Your task to perform on an android device: turn pop-ups on in chrome Image 0: 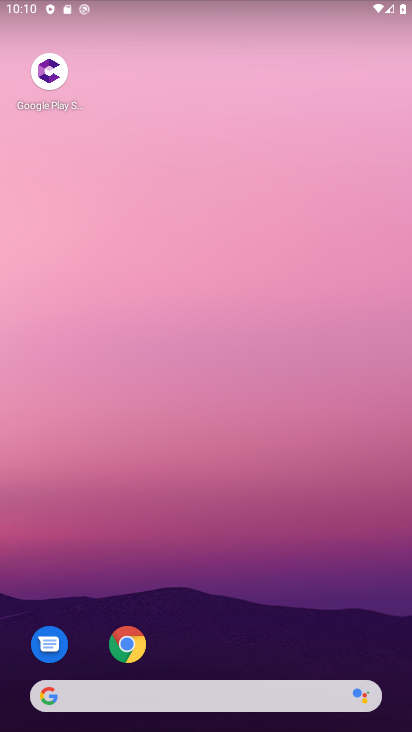
Step 0: click (185, 174)
Your task to perform on an android device: turn pop-ups on in chrome Image 1: 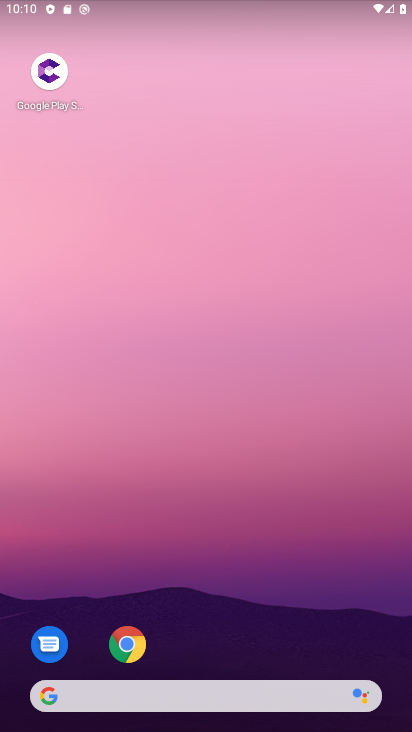
Step 1: drag from (209, 669) to (160, 241)
Your task to perform on an android device: turn pop-ups on in chrome Image 2: 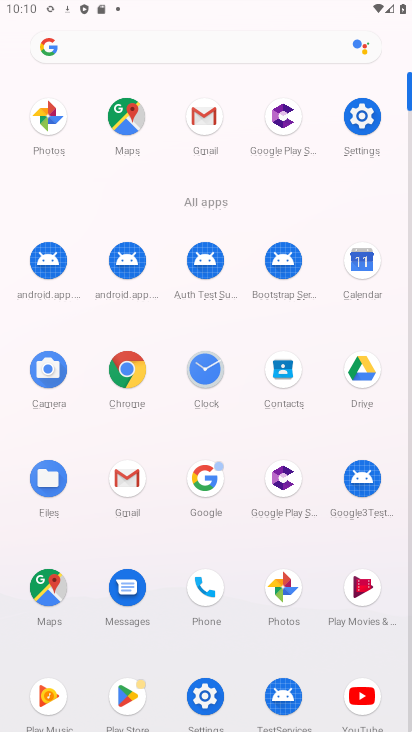
Step 2: click (126, 366)
Your task to perform on an android device: turn pop-ups on in chrome Image 3: 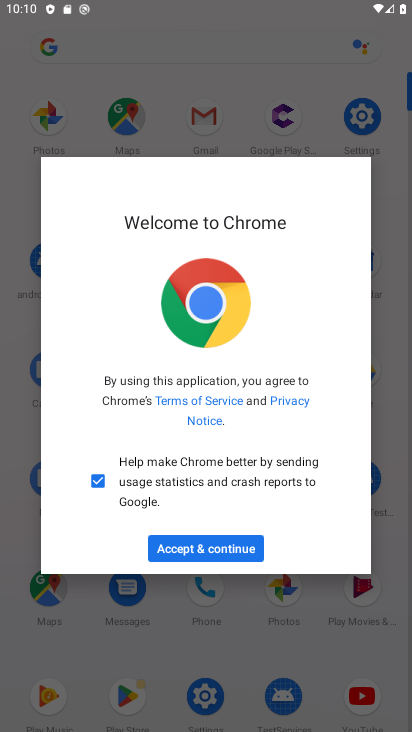
Step 3: click (218, 542)
Your task to perform on an android device: turn pop-ups on in chrome Image 4: 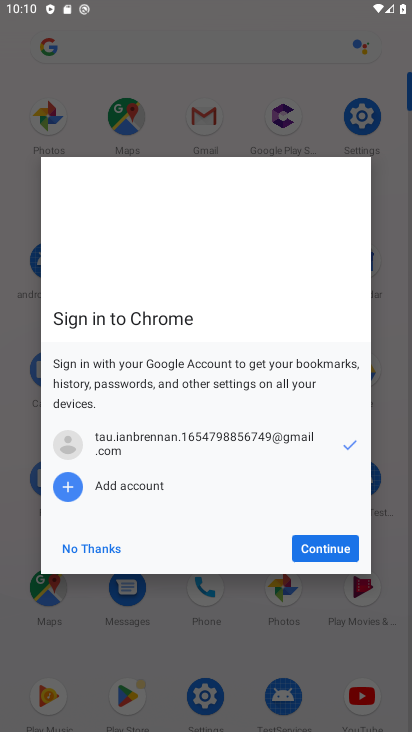
Step 4: click (311, 551)
Your task to perform on an android device: turn pop-ups on in chrome Image 5: 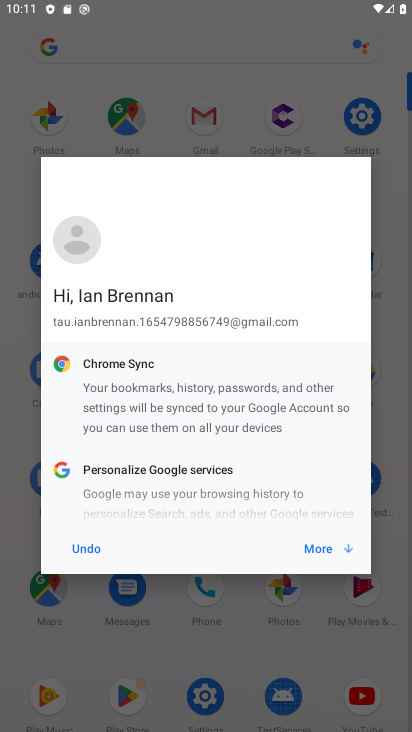
Step 5: click (328, 546)
Your task to perform on an android device: turn pop-ups on in chrome Image 6: 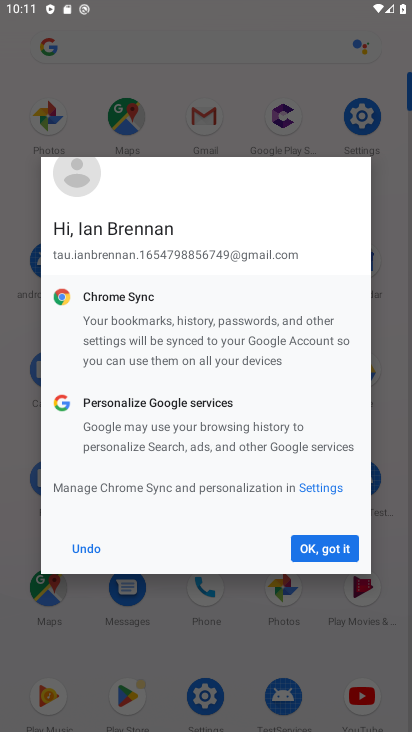
Step 6: click (87, 545)
Your task to perform on an android device: turn pop-ups on in chrome Image 7: 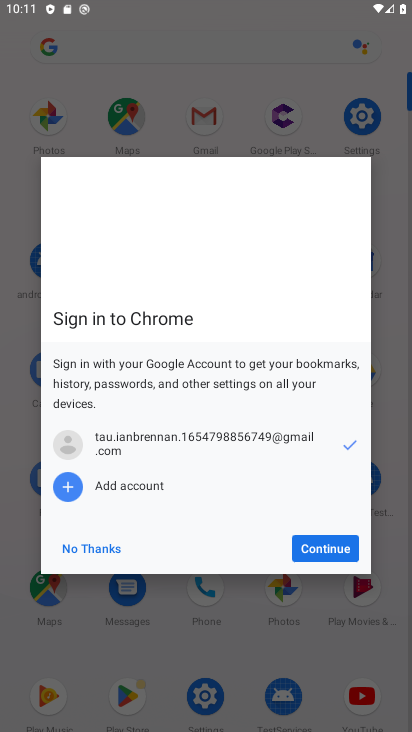
Step 7: click (338, 540)
Your task to perform on an android device: turn pop-ups on in chrome Image 8: 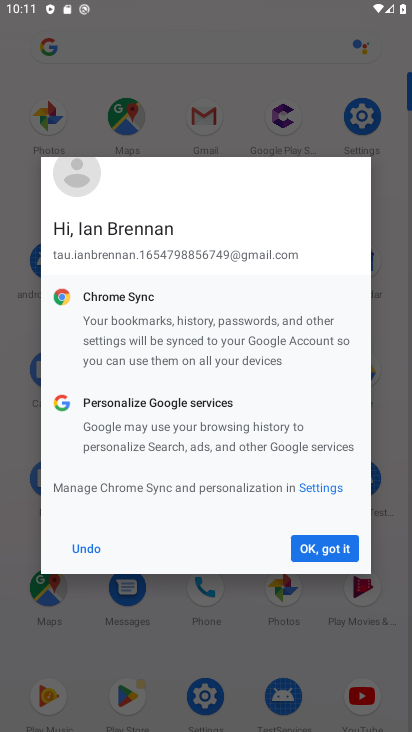
Step 8: click (332, 544)
Your task to perform on an android device: turn pop-ups on in chrome Image 9: 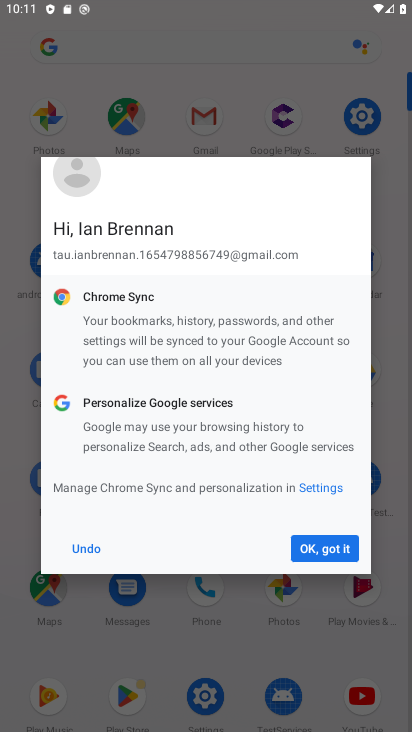
Step 9: click (331, 544)
Your task to perform on an android device: turn pop-ups on in chrome Image 10: 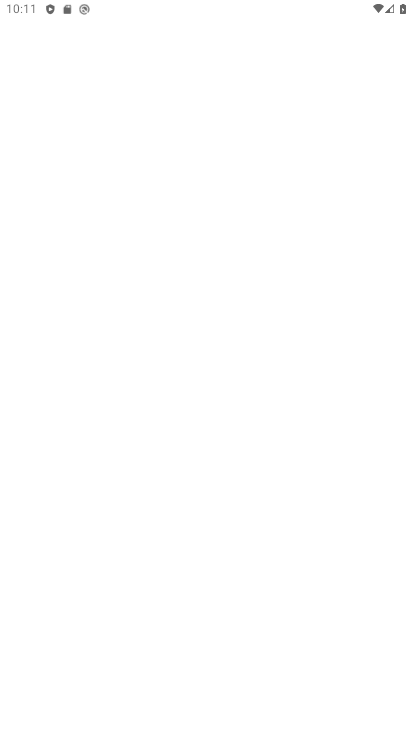
Step 10: click (331, 546)
Your task to perform on an android device: turn pop-ups on in chrome Image 11: 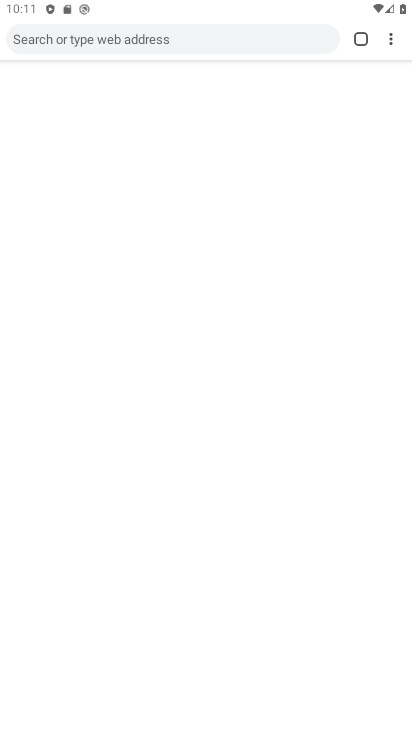
Step 11: click (331, 549)
Your task to perform on an android device: turn pop-ups on in chrome Image 12: 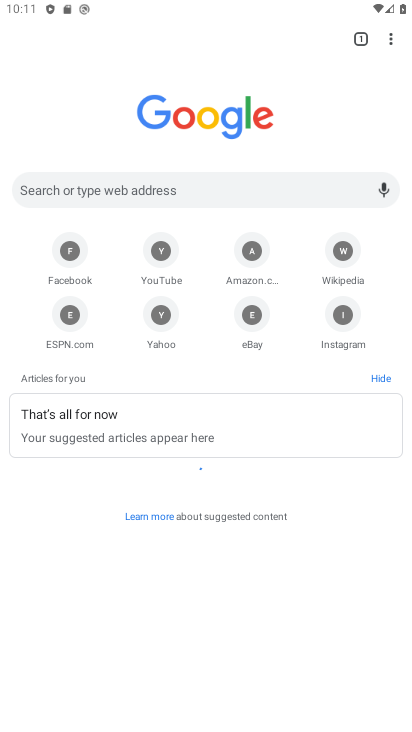
Step 12: drag from (393, 43) to (252, 330)
Your task to perform on an android device: turn pop-ups on in chrome Image 13: 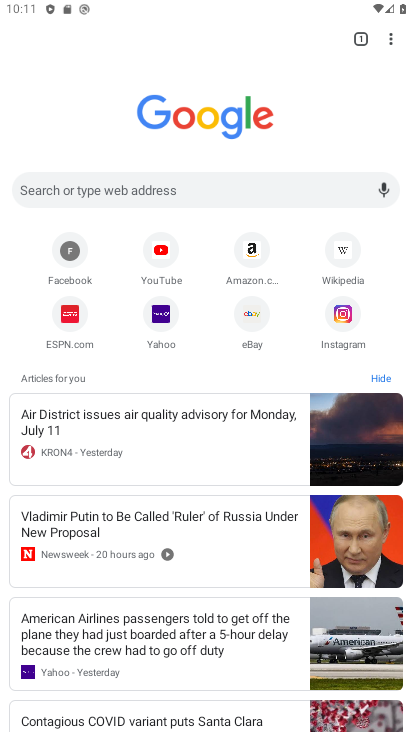
Step 13: click (252, 330)
Your task to perform on an android device: turn pop-ups on in chrome Image 14: 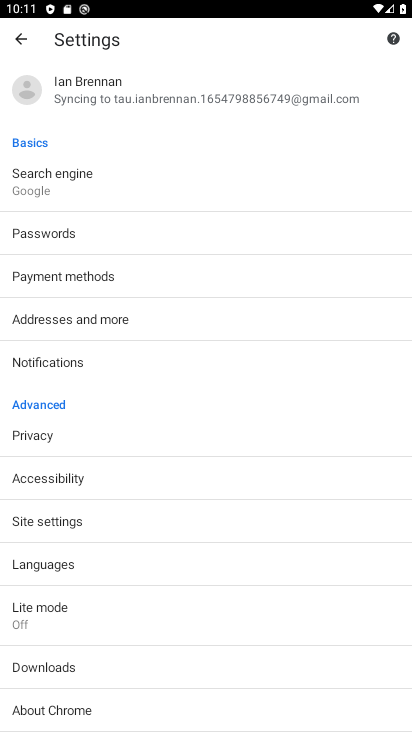
Step 14: click (50, 519)
Your task to perform on an android device: turn pop-ups on in chrome Image 15: 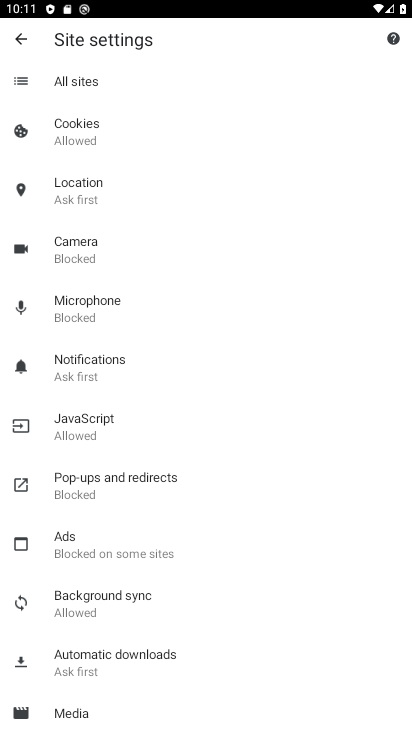
Step 15: drag from (94, 621) to (104, 208)
Your task to perform on an android device: turn pop-ups on in chrome Image 16: 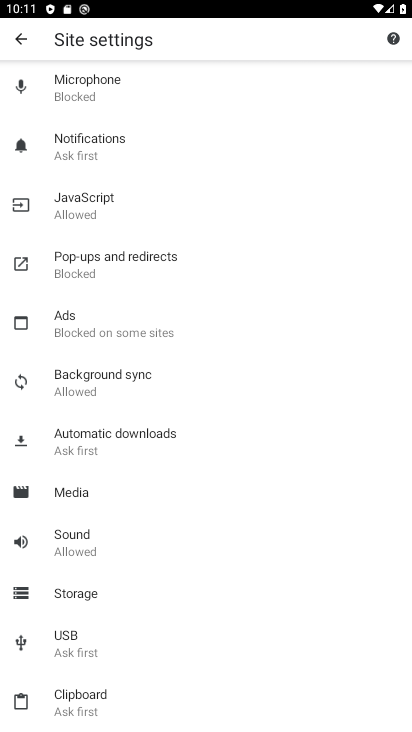
Step 16: click (90, 251)
Your task to perform on an android device: turn pop-ups on in chrome Image 17: 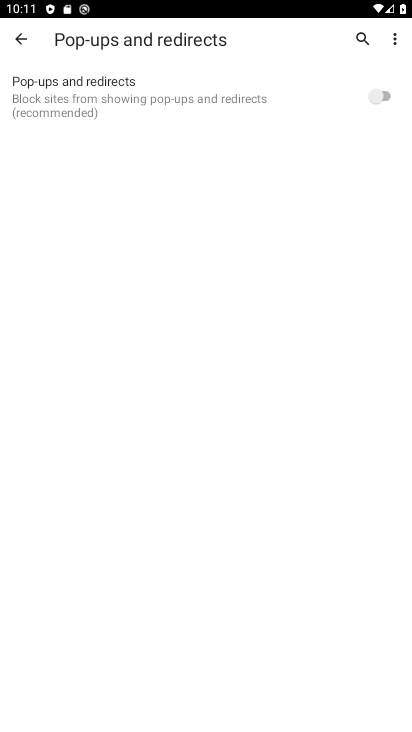
Step 17: click (369, 93)
Your task to perform on an android device: turn pop-ups on in chrome Image 18: 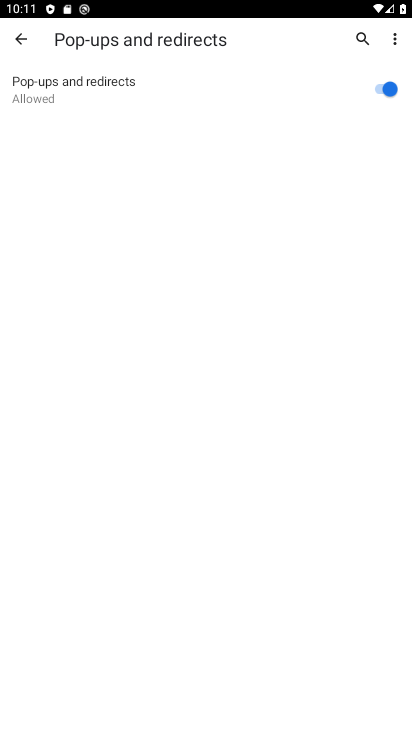
Step 18: task complete